Your task to perform on an android device: turn off translation in the chrome app Image 0: 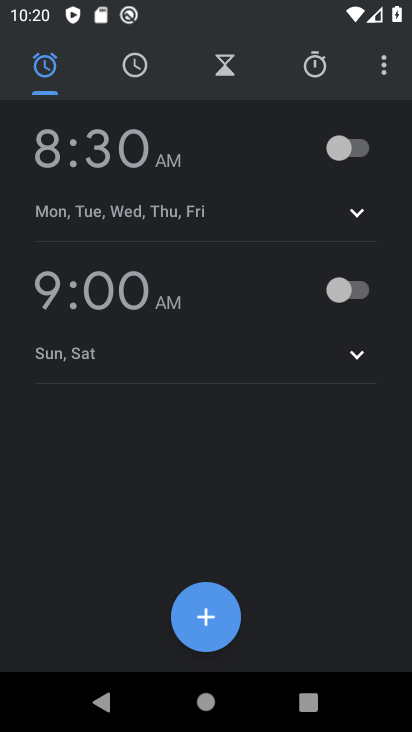
Step 0: press home button
Your task to perform on an android device: turn off translation in the chrome app Image 1: 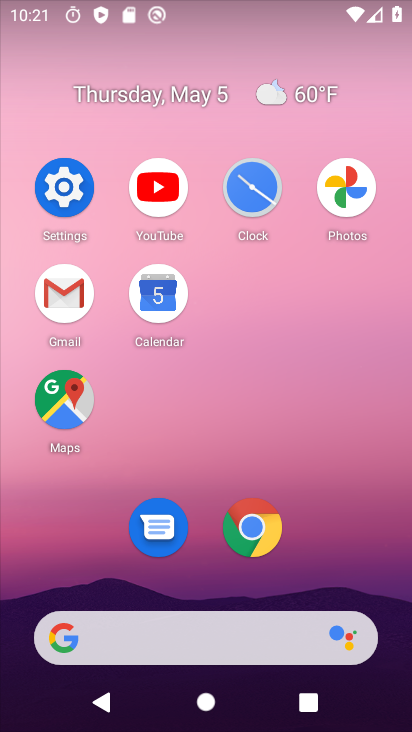
Step 1: click (268, 520)
Your task to perform on an android device: turn off translation in the chrome app Image 2: 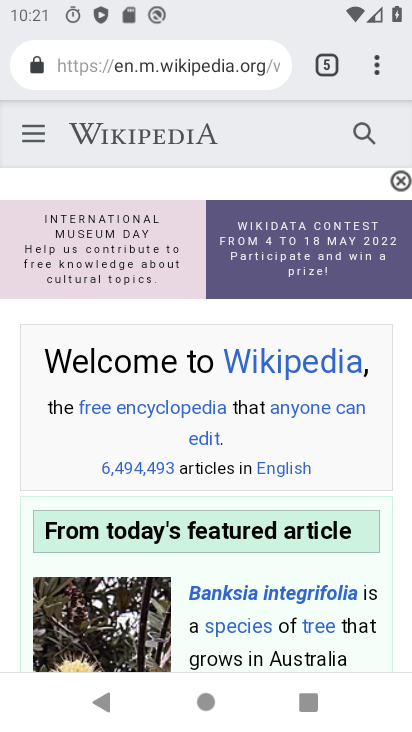
Step 2: click (367, 67)
Your task to perform on an android device: turn off translation in the chrome app Image 3: 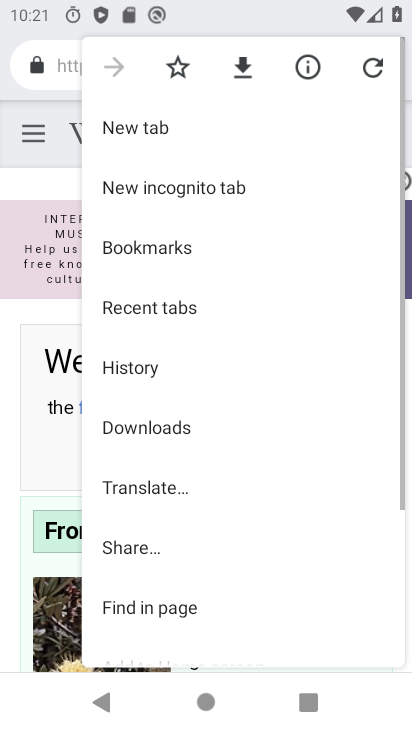
Step 3: drag from (224, 515) to (235, 114)
Your task to perform on an android device: turn off translation in the chrome app Image 4: 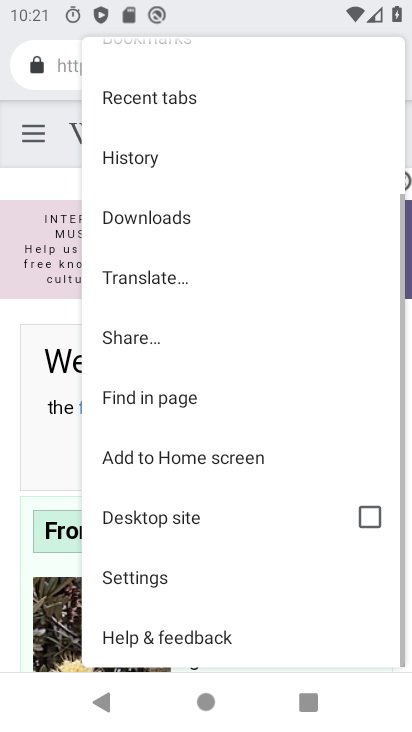
Step 4: click (174, 584)
Your task to perform on an android device: turn off translation in the chrome app Image 5: 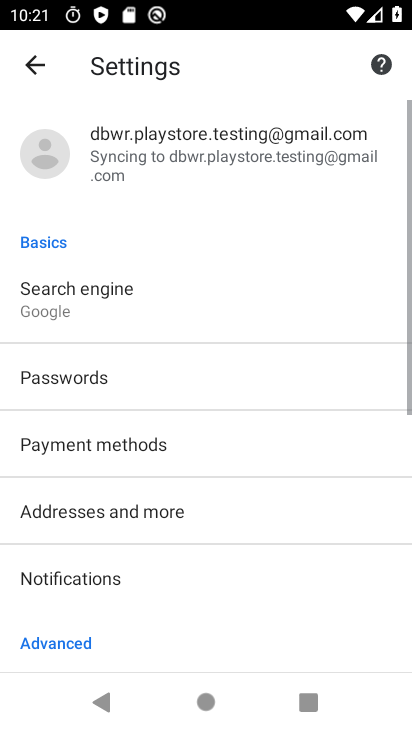
Step 5: drag from (173, 584) to (245, 93)
Your task to perform on an android device: turn off translation in the chrome app Image 6: 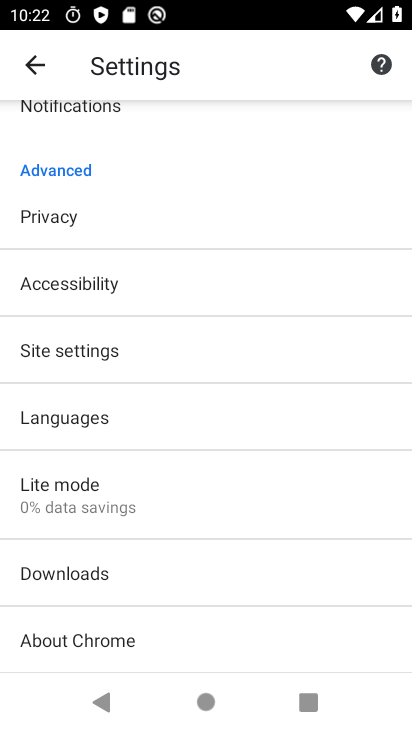
Step 6: drag from (234, 640) to (265, 235)
Your task to perform on an android device: turn off translation in the chrome app Image 7: 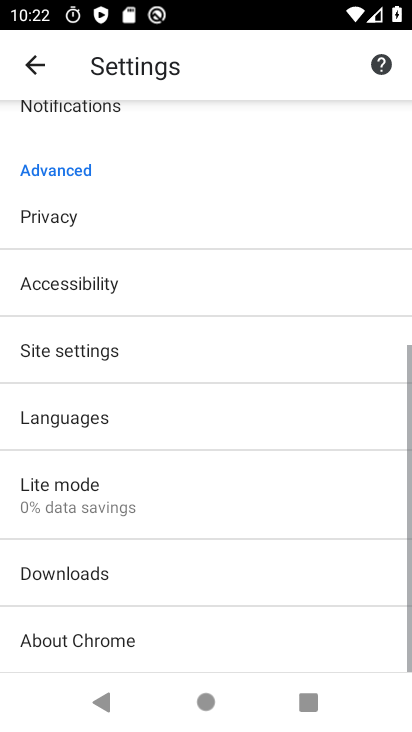
Step 7: click (248, 432)
Your task to perform on an android device: turn off translation in the chrome app Image 8: 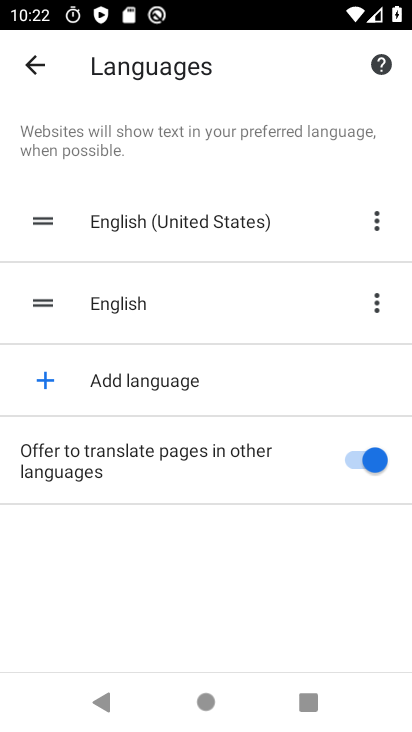
Step 8: click (392, 459)
Your task to perform on an android device: turn off translation in the chrome app Image 9: 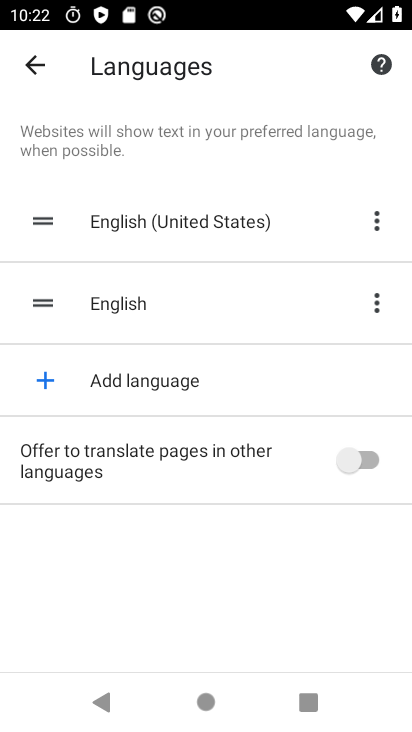
Step 9: task complete